Your task to perform on an android device: turn off picture-in-picture Image 0: 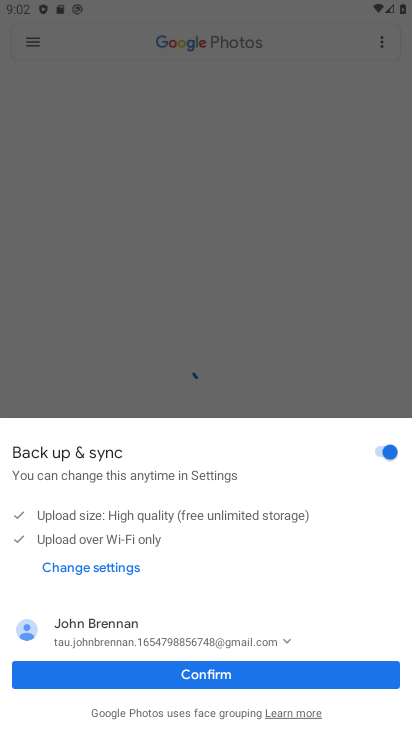
Step 0: press home button
Your task to perform on an android device: turn off picture-in-picture Image 1: 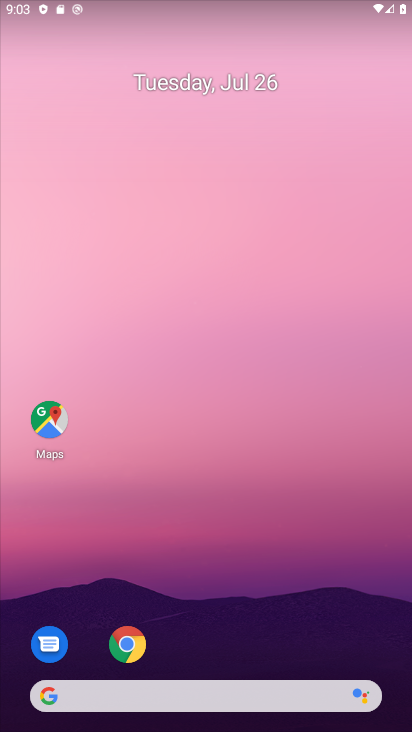
Step 1: click (132, 653)
Your task to perform on an android device: turn off picture-in-picture Image 2: 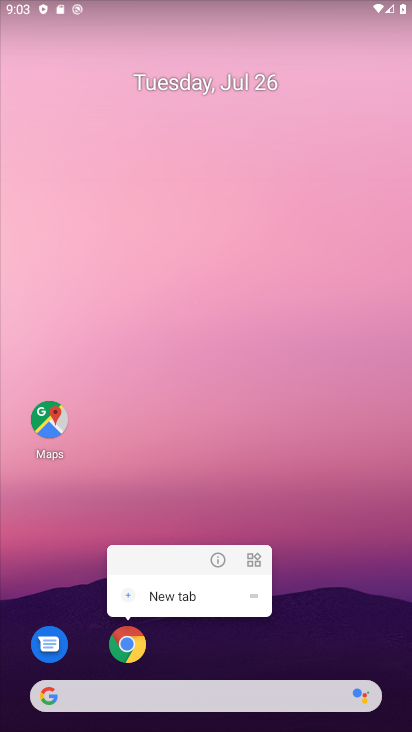
Step 2: click (221, 558)
Your task to perform on an android device: turn off picture-in-picture Image 3: 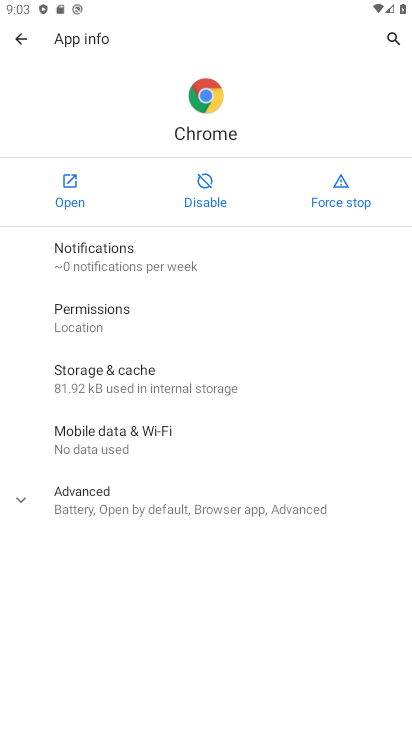
Step 3: click (136, 496)
Your task to perform on an android device: turn off picture-in-picture Image 4: 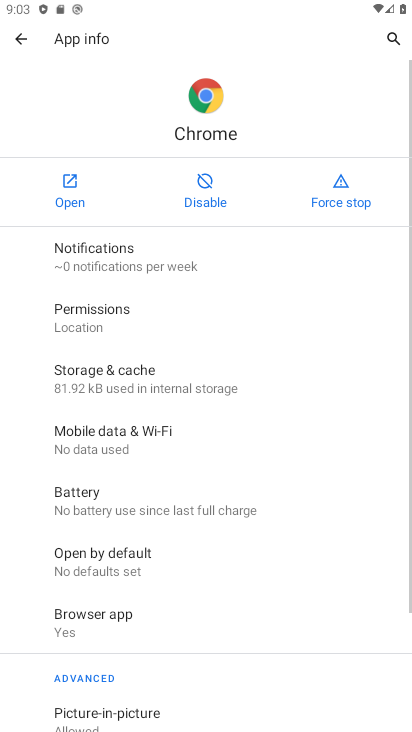
Step 4: drag from (125, 639) to (143, 521)
Your task to perform on an android device: turn off picture-in-picture Image 5: 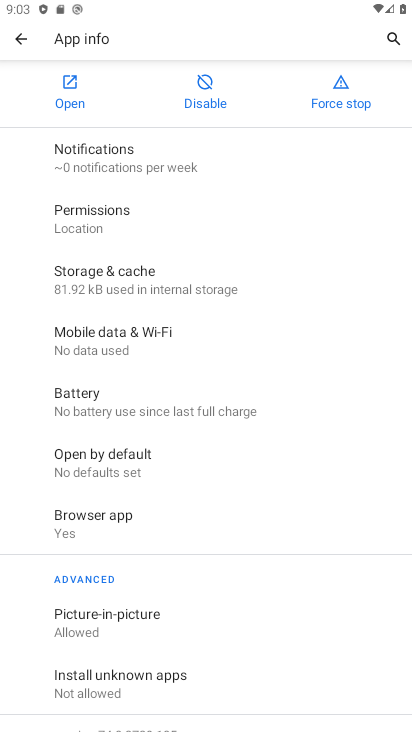
Step 5: click (121, 629)
Your task to perform on an android device: turn off picture-in-picture Image 6: 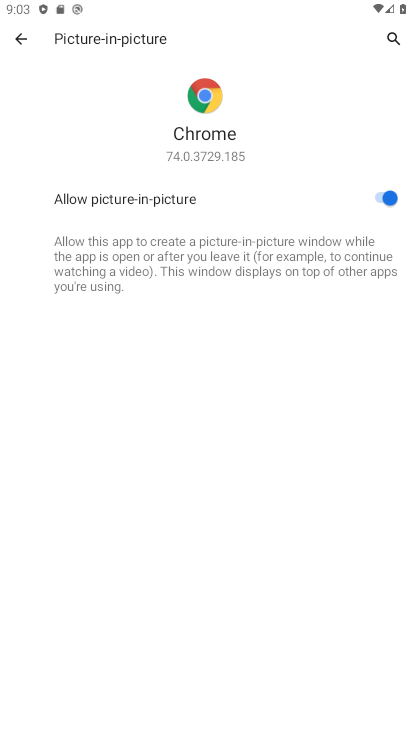
Step 6: click (363, 203)
Your task to perform on an android device: turn off picture-in-picture Image 7: 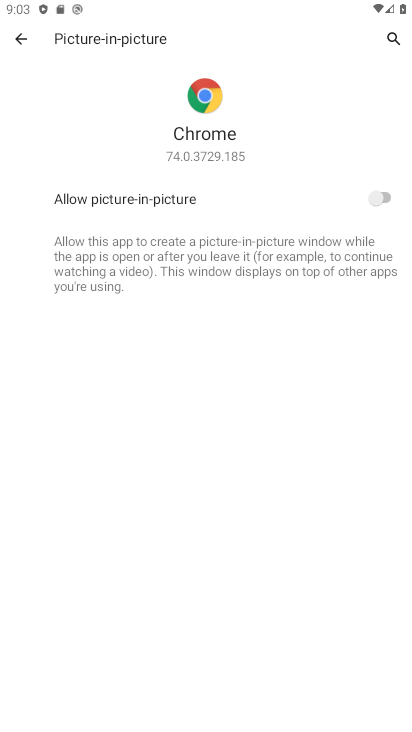
Step 7: task complete